Your task to perform on an android device: Search for sushi restaurants on Maps Image 0: 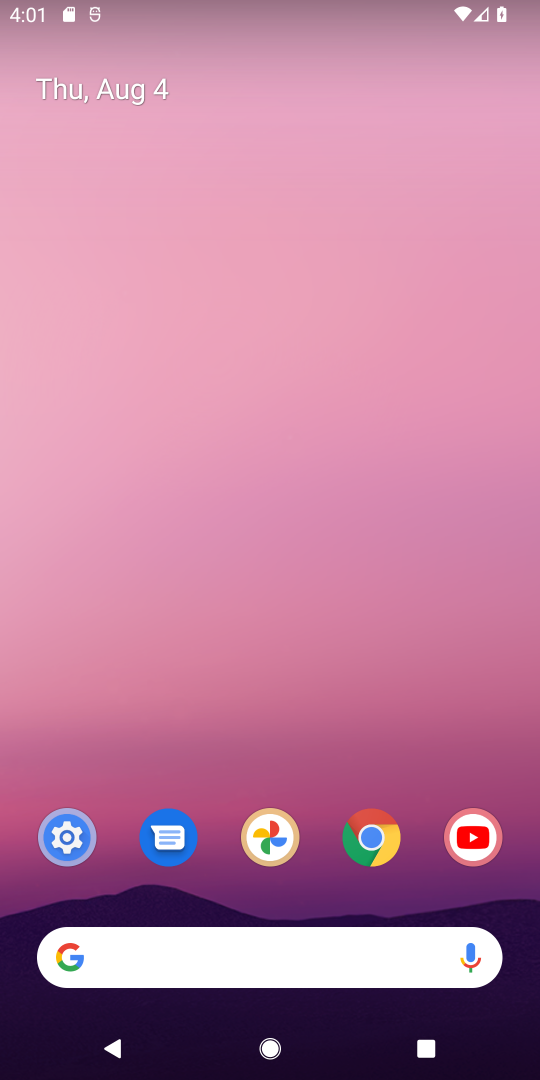
Step 0: press home button
Your task to perform on an android device: Search for sushi restaurants on Maps Image 1: 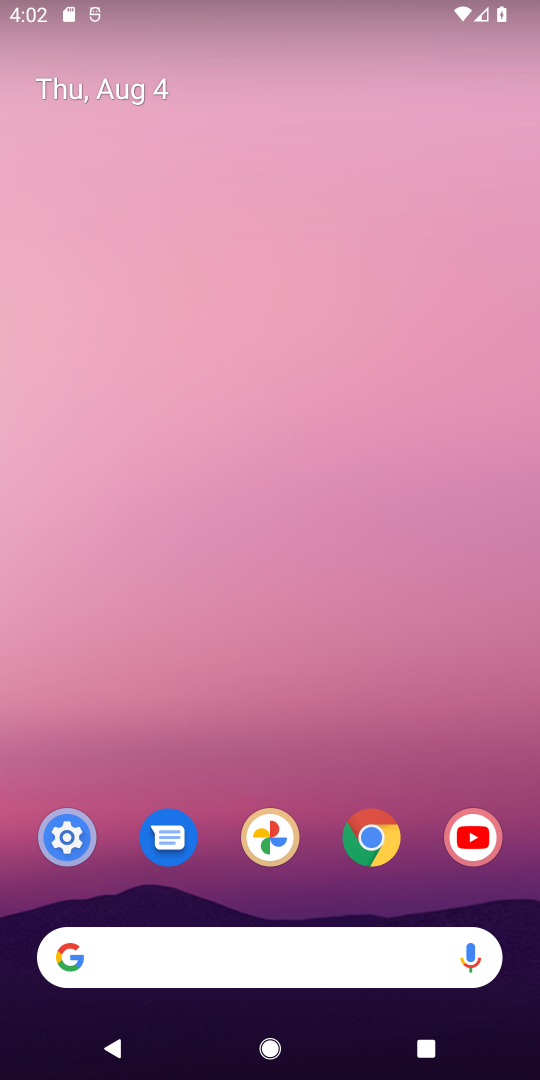
Step 1: drag from (233, 756) to (263, 0)
Your task to perform on an android device: Search for sushi restaurants on Maps Image 2: 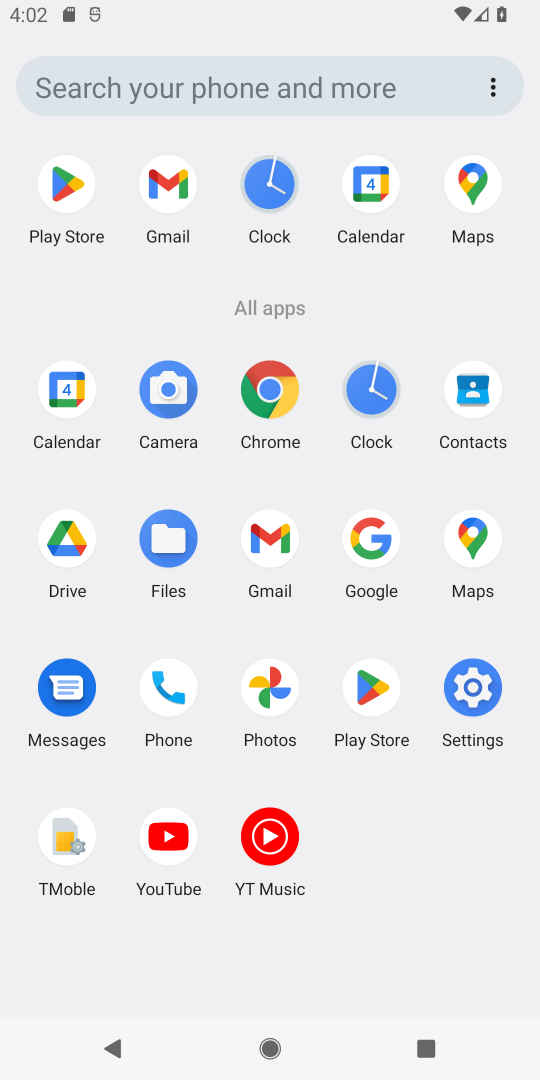
Step 2: click (471, 540)
Your task to perform on an android device: Search for sushi restaurants on Maps Image 3: 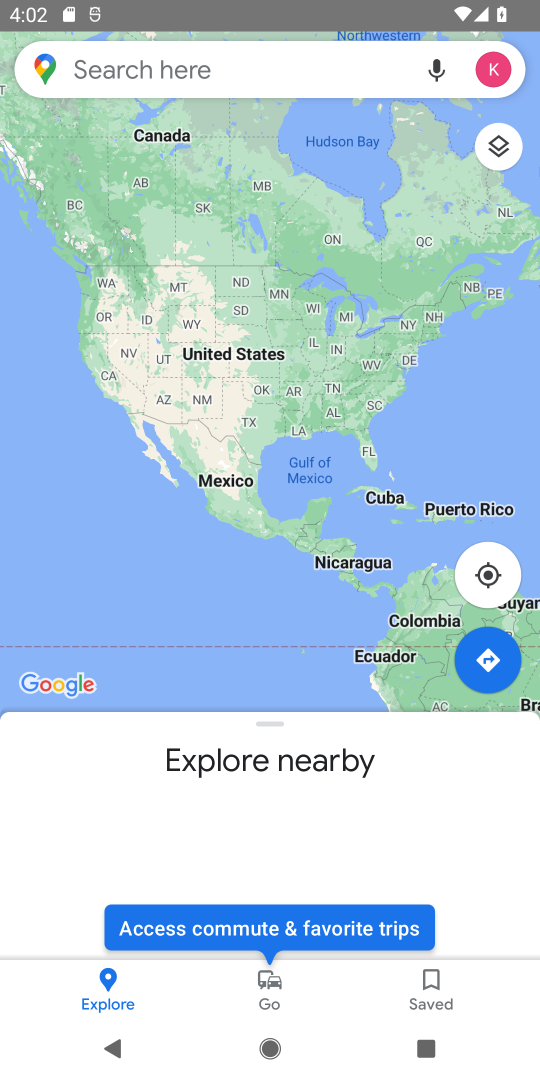
Step 3: click (169, 57)
Your task to perform on an android device: Search for sushi restaurants on Maps Image 4: 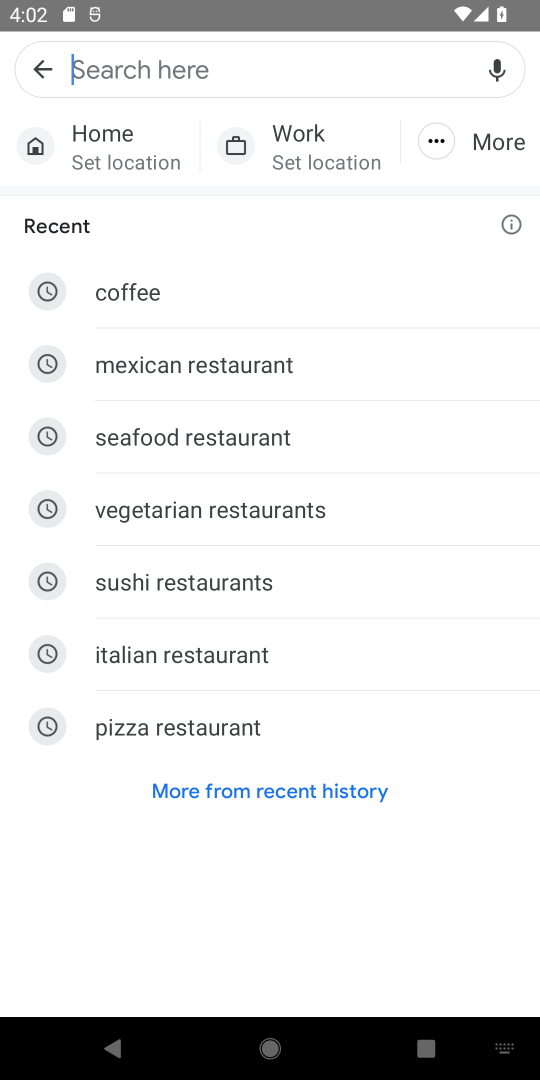
Step 4: click (180, 585)
Your task to perform on an android device: Search for sushi restaurants on Maps Image 5: 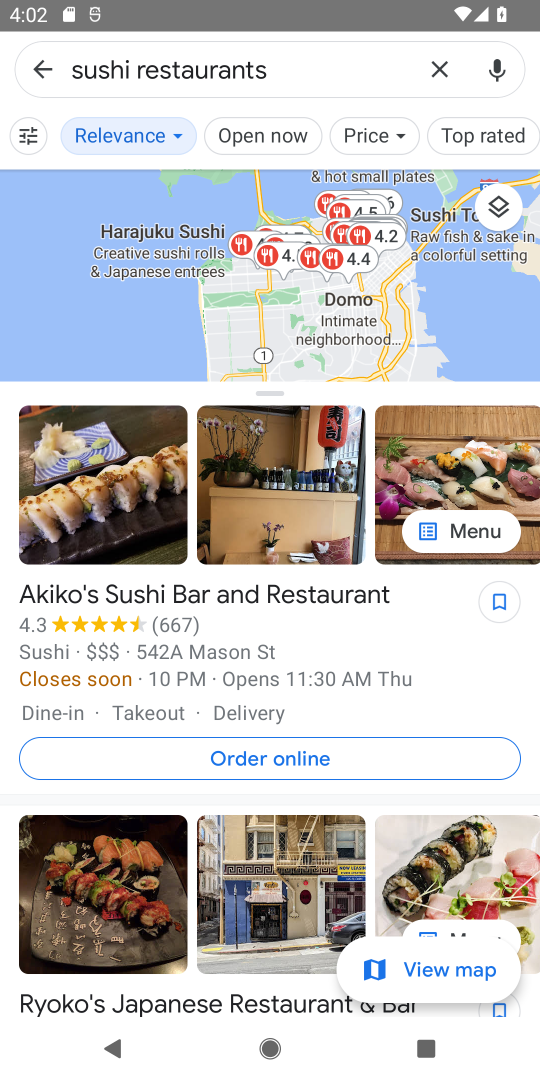
Step 5: task complete